Your task to perform on an android device: check the backup settings in the google photos Image 0: 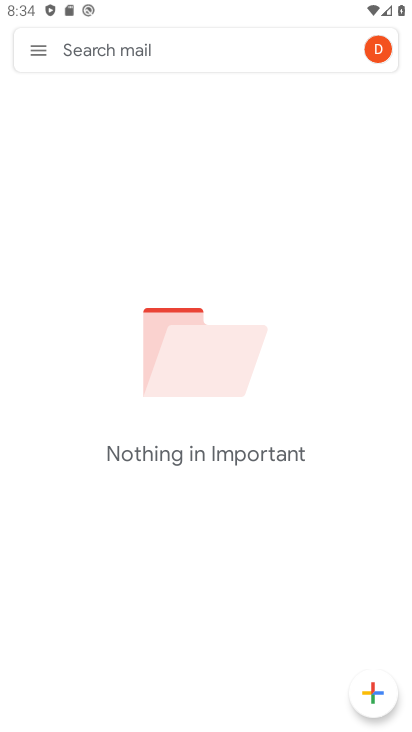
Step 0: press back button
Your task to perform on an android device: check the backup settings in the google photos Image 1: 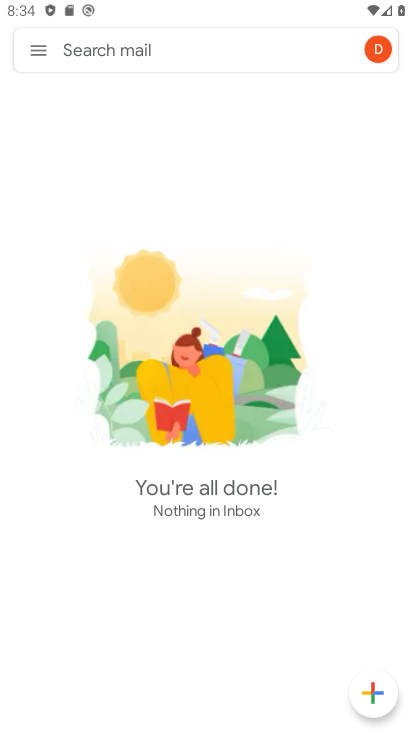
Step 1: press home button
Your task to perform on an android device: check the backup settings in the google photos Image 2: 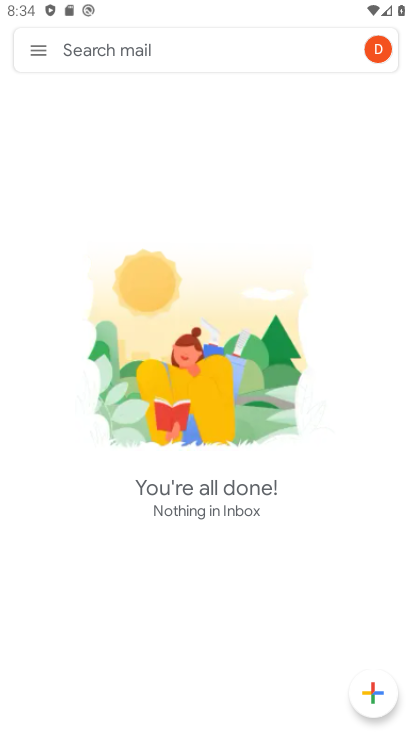
Step 2: press home button
Your task to perform on an android device: check the backup settings in the google photos Image 3: 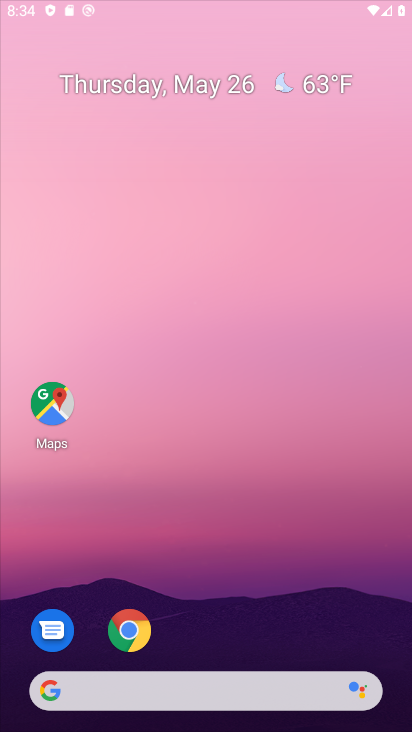
Step 3: press home button
Your task to perform on an android device: check the backup settings in the google photos Image 4: 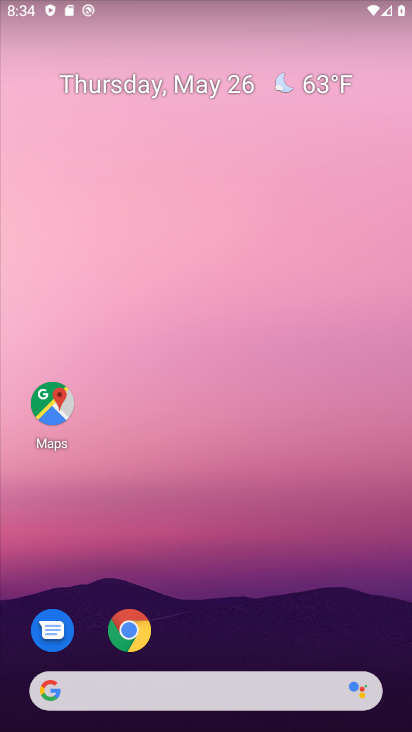
Step 4: drag from (226, 674) to (191, 167)
Your task to perform on an android device: check the backup settings in the google photos Image 5: 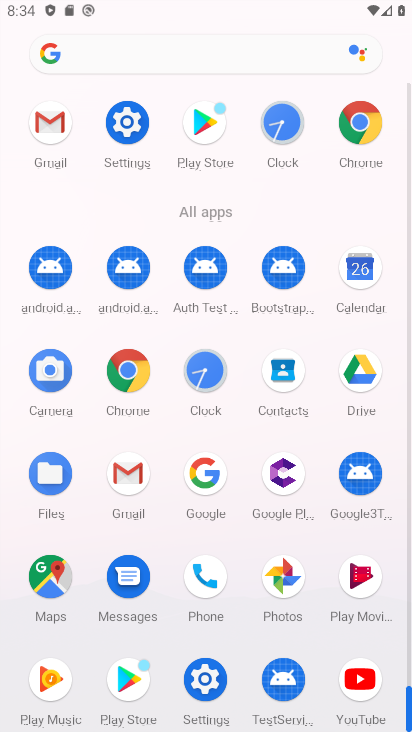
Step 5: click (277, 581)
Your task to perform on an android device: check the backup settings in the google photos Image 6: 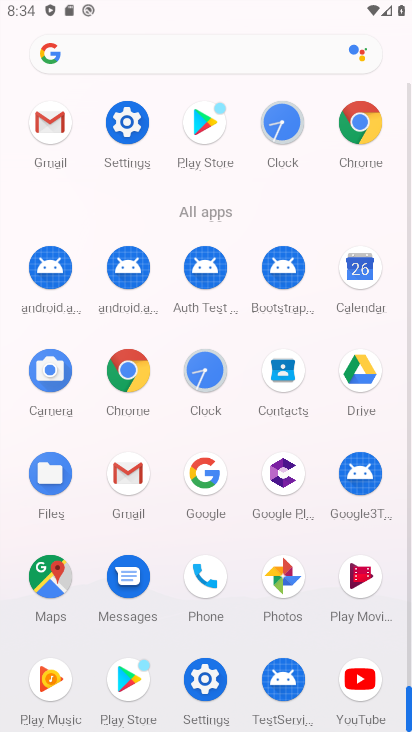
Step 6: click (277, 581)
Your task to perform on an android device: check the backup settings in the google photos Image 7: 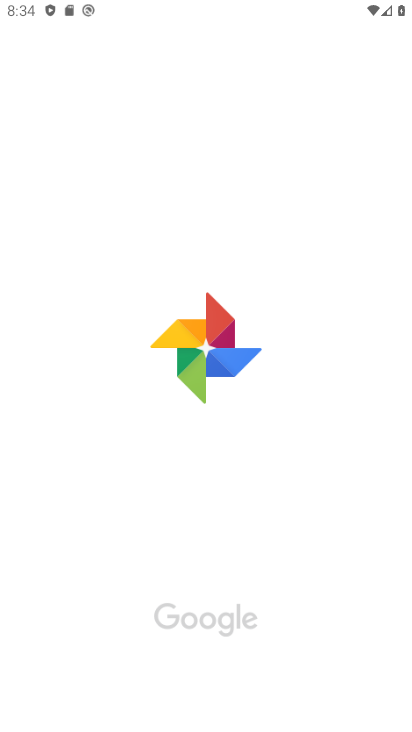
Step 7: click (284, 577)
Your task to perform on an android device: check the backup settings in the google photos Image 8: 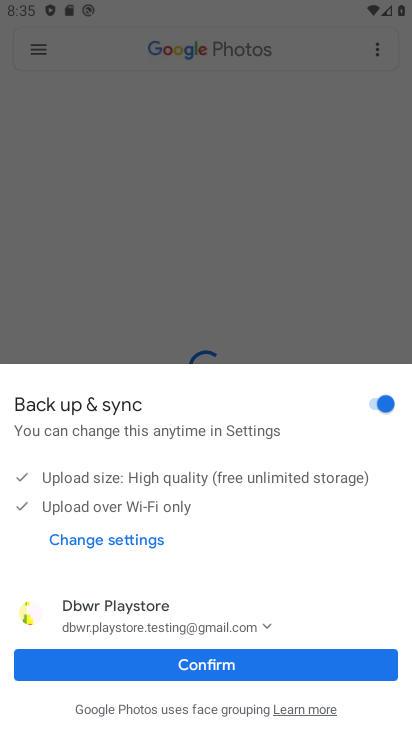
Step 8: click (222, 664)
Your task to perform on an android device: check the backup settings in the google photos Image 9: 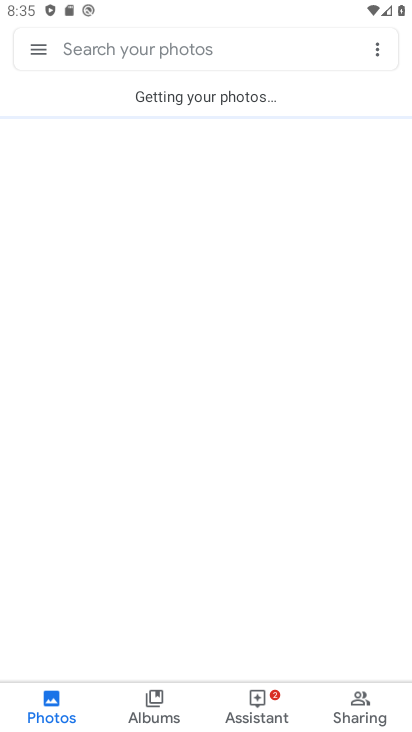
Step 9: task complete